Your task to perform on an android device: set the timer Image 0: 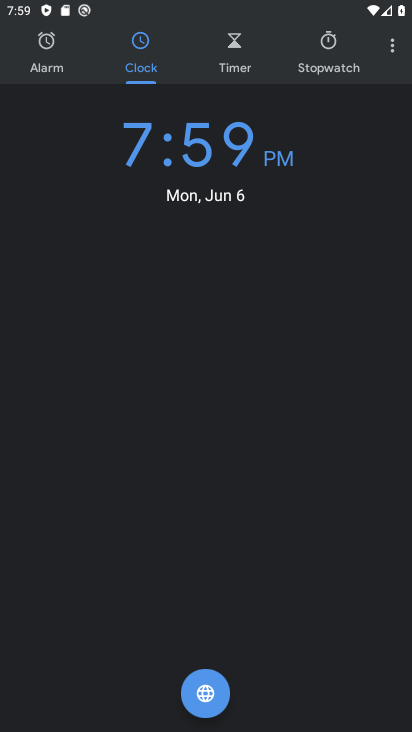
Step 0: press back button
Your task to perform on an android device: set the timer Image 1: 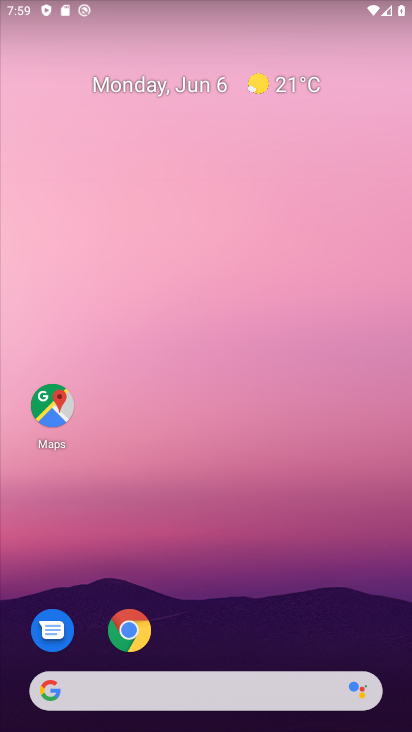
Step 1: drag from (243, 607) to (181, 53)
Your task to perform on an android device: set the timer Image 2: 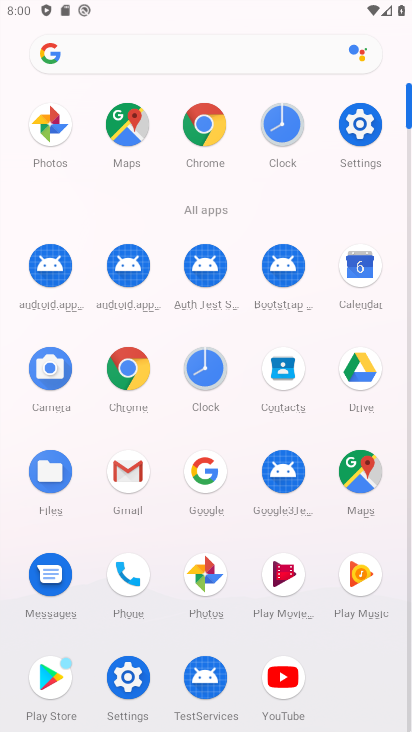
Step 2: click (282, 124)
Your task to perform on an android device: set the timer Image 3: 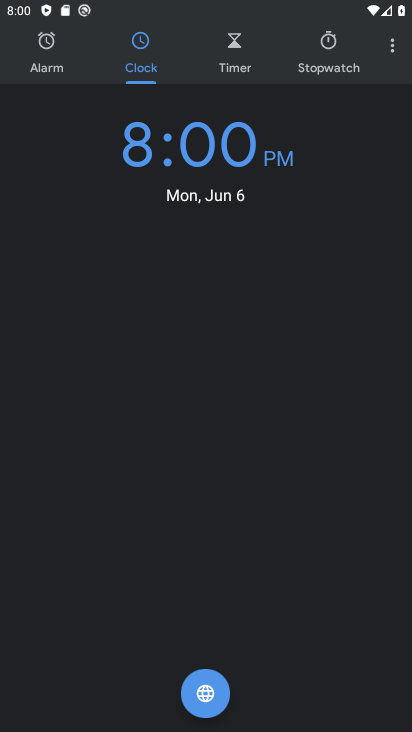
Step 3: click (237, 47)
Your task to perform on an android device: set the timer Image 4: 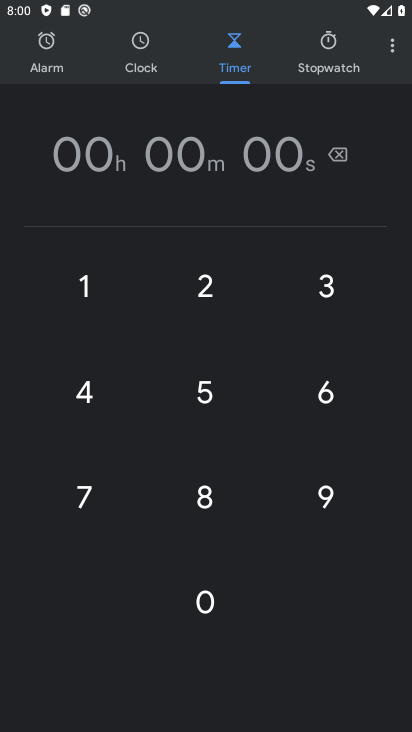
Step 4: type "1357"
Your task to perform on an android device: set the timer Image 5: 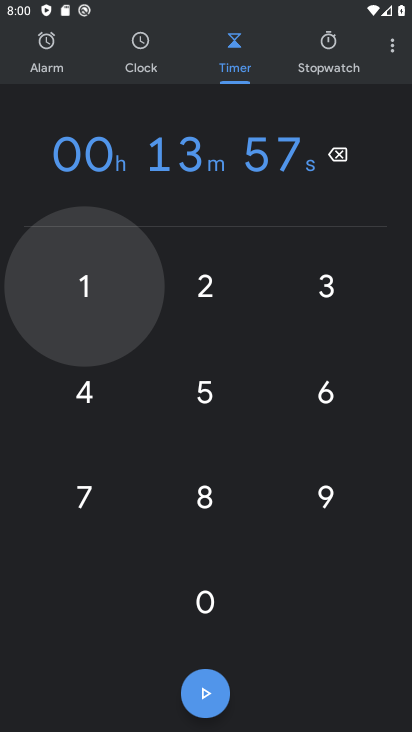
Step 5: click (206, 689)
Your task to perform on an android device: set the timer Image 6: 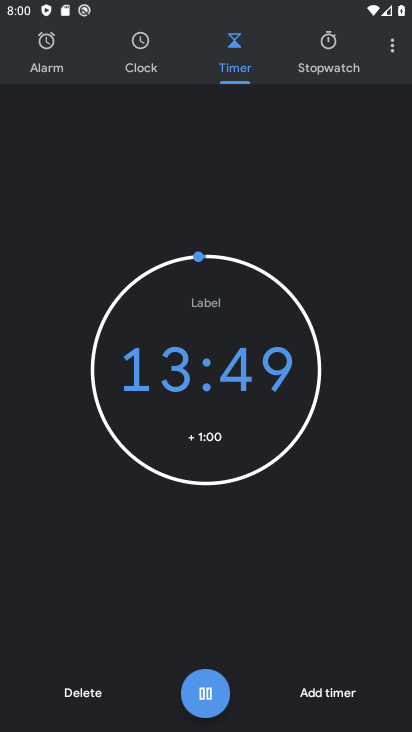
Step 6: click (206, 689)
Your task to perform on an android device: set the timer Image 7: 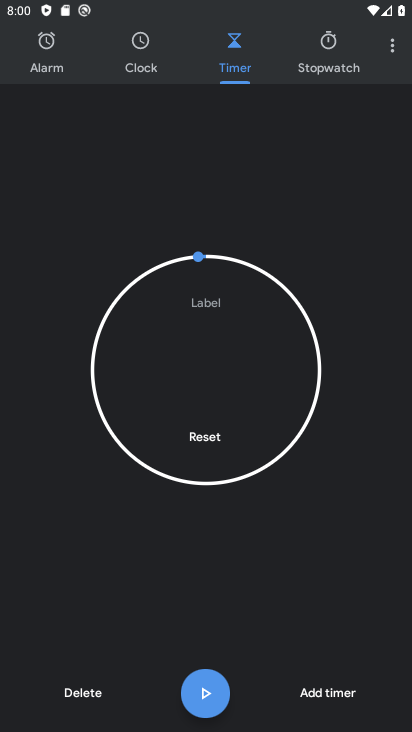
Step 7: task complete